Your task to perform on an android device: turn off translation in the chrome app Image 0: 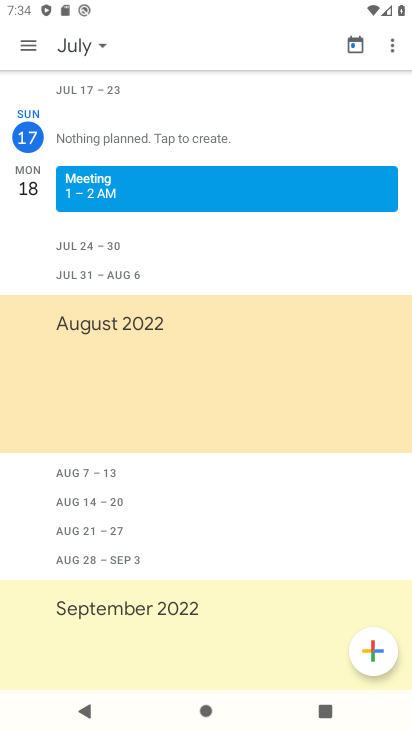
Step 0: press home button
Your task to perform on an android device: turn off translation in the chrome app Image 1: 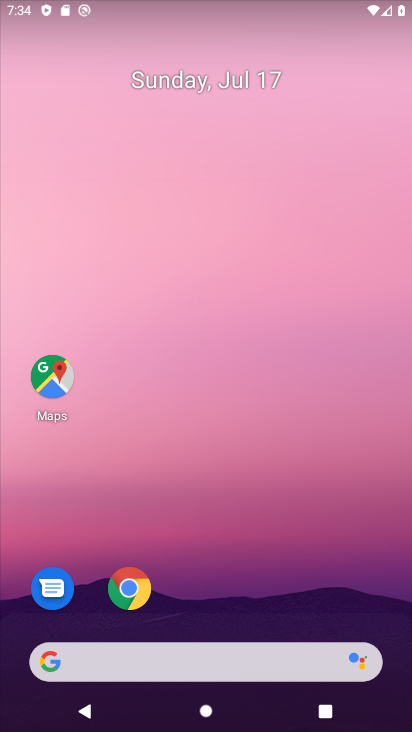
Step 1: drag from (307, 624) to (266, 20)
Your task to perform on an android device: turn off translation in the chrome app Image 2: 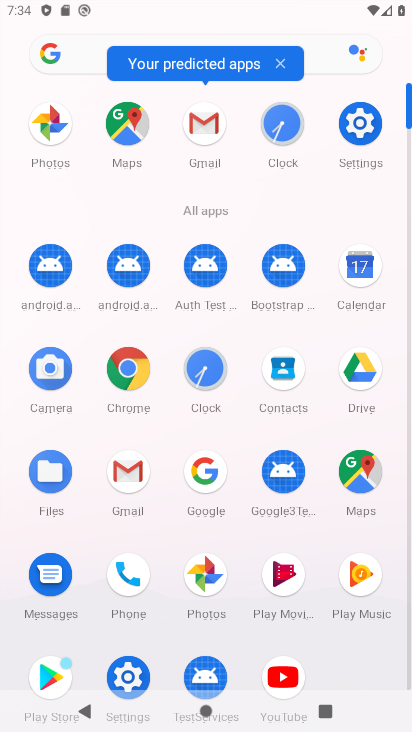
Step 2: click (134, 388)
Your task to perform on an android device: turn off translation in the chrome app Image 3: 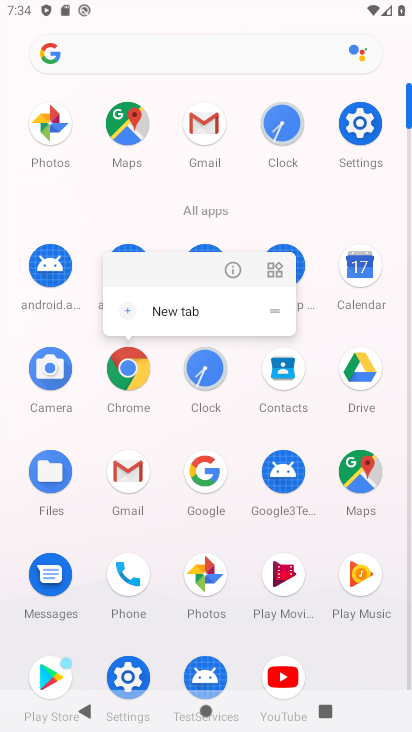
Step 3: click (134, 390)
Your task to perform on an android device: turn off translation in the chrome app Image 4: 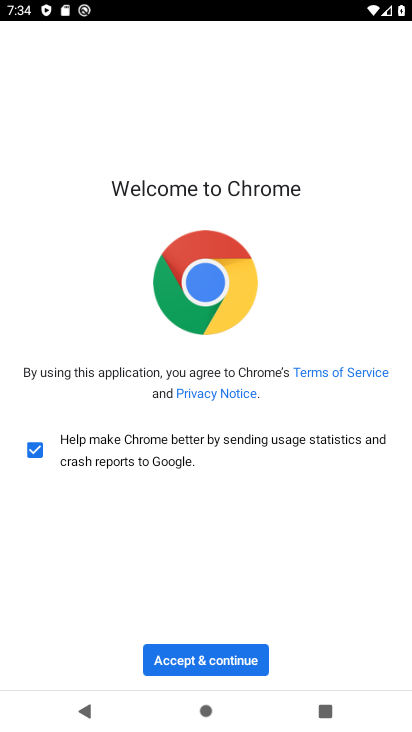
Step 4: click (227, 658)
Your task to perform on an android device: turn off translation in the chrome app Image 5: 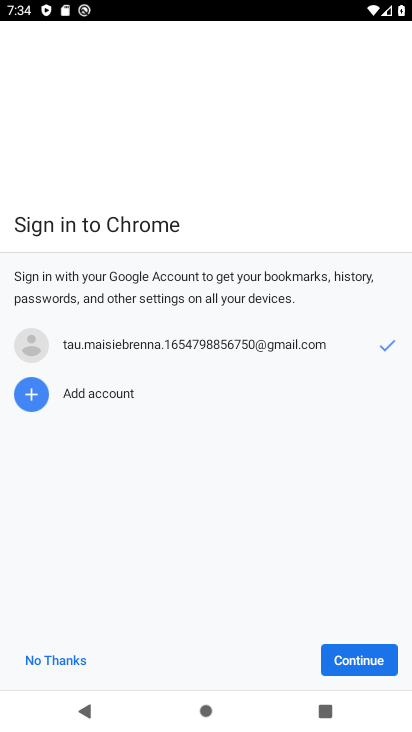
Step 5: click (356, 670)
Your task to perform on an android device: turn off translation in the chrome app Image 6: 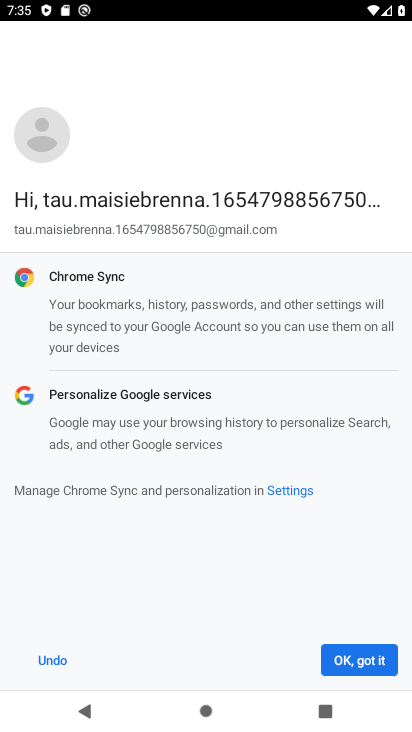
Step 6: click (352, 661)
Your task to perform on an android device: turn off translation in the chrome app Image 7: 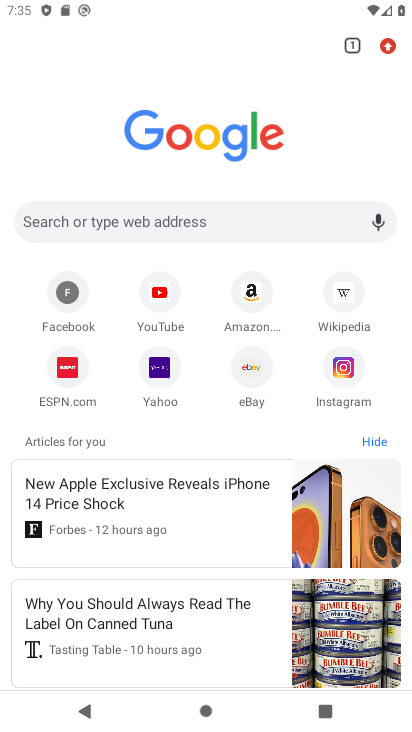
Step 7: click (388, 53)
Your task to perform on an android device: turn off translation in the chrome app Image 8: 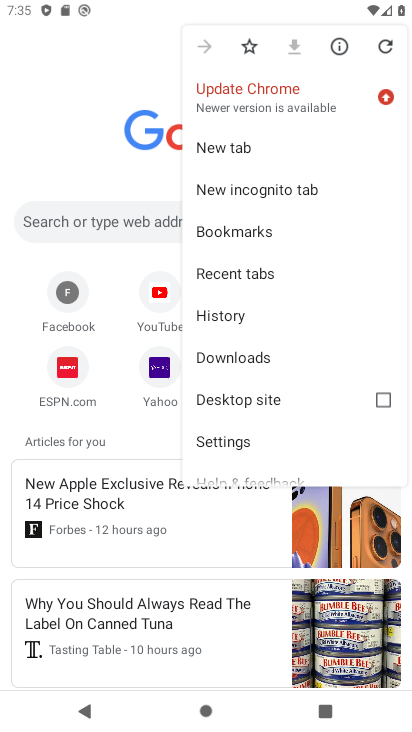
Step 8: task complete